Your task to perform on an android device: Go to internet settings Image 0: 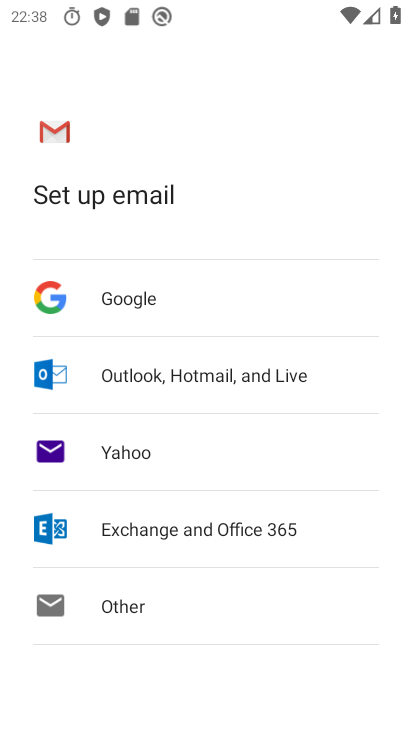
Step 0: press home button
Your task to perform on an android device: Go to internet settings Image 1: 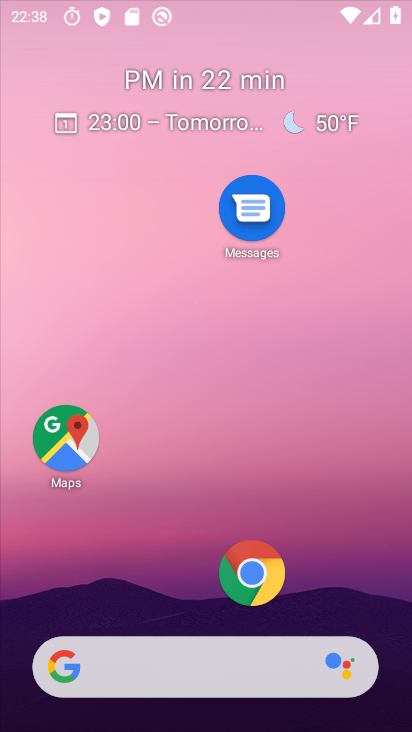
Step 1: drag from (190, 621) to (196, 12)
Your task to perform on an android device: Go to internet settings Image 2: 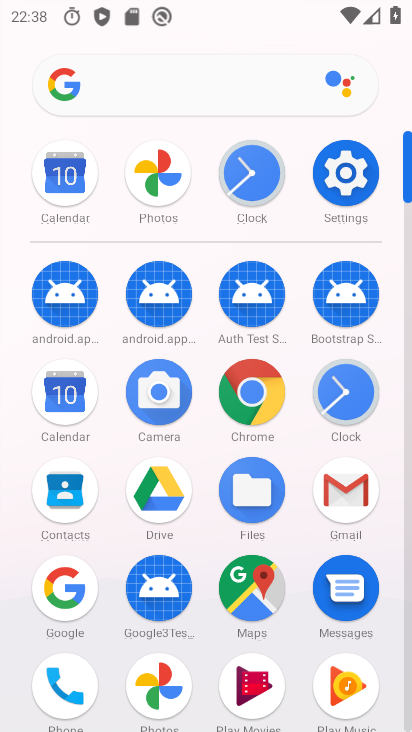
Step 2: click (348, 171)
Your task to perform on an android device: Go to internet settings Image 3: 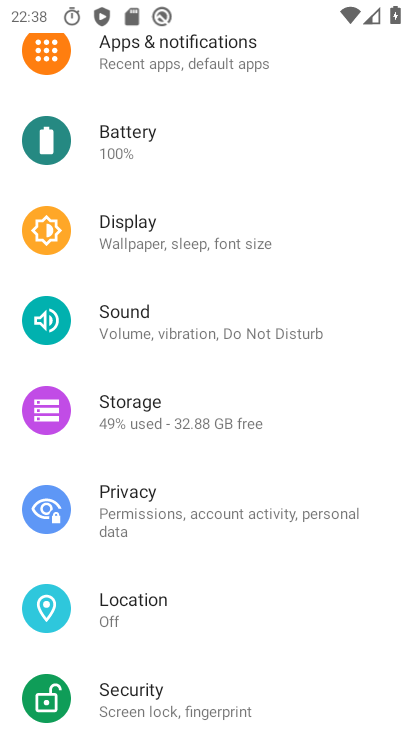
Step 3: drag from (147, 97) to (217, 710)
Your task to perform on an android device: Go to internet settings Image 4: 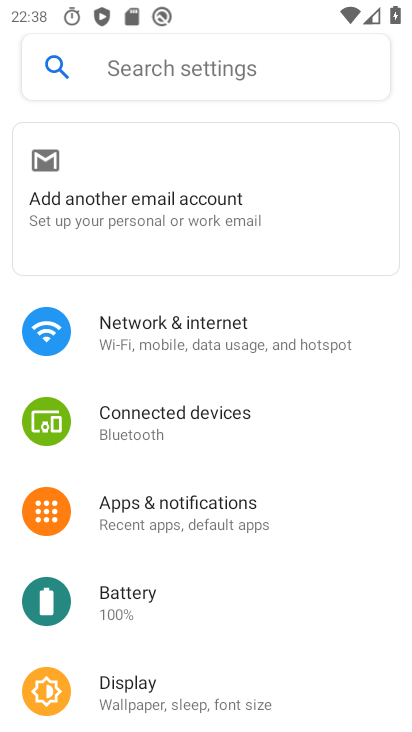
Step 4: click (106, 352)
Your task to perform on an android device: Go to internet settings Image 5: 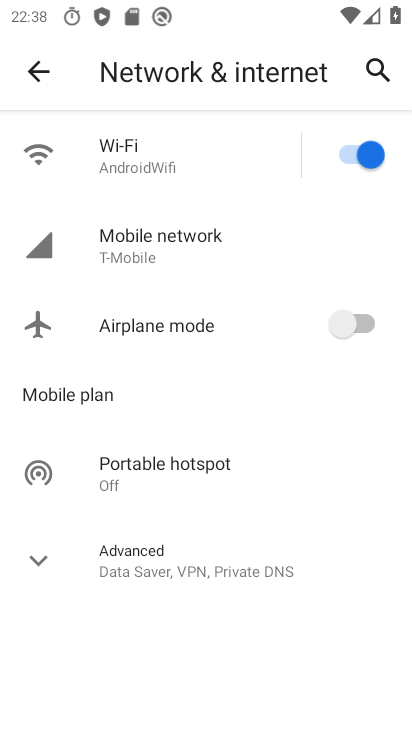
Step 5: click (143, 149)
Your task to perform on an android device: Go to internet settings Image 6: 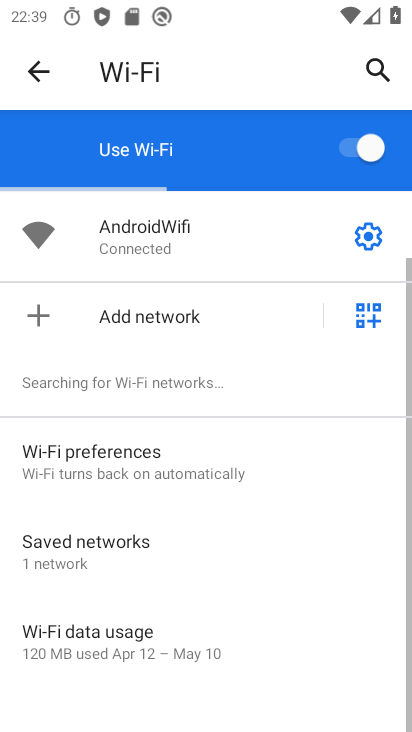
Step 6: click (370, 240)
Your task to perform on an android device: Go to internet settings Image 7: 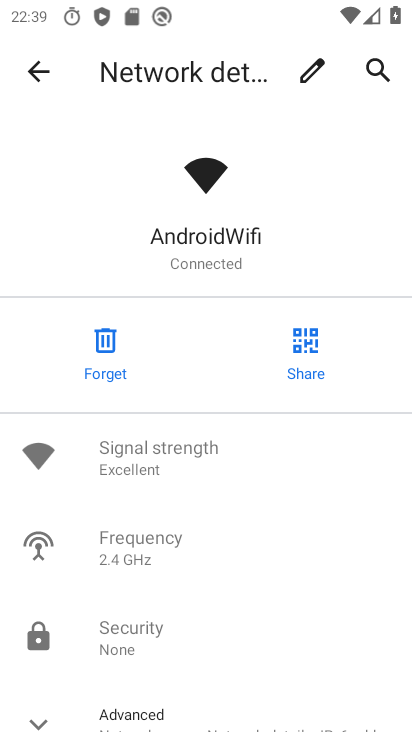
Step 7: task complete